Your task to perform on an android device: Show me popular games on the Play Store Image 0: 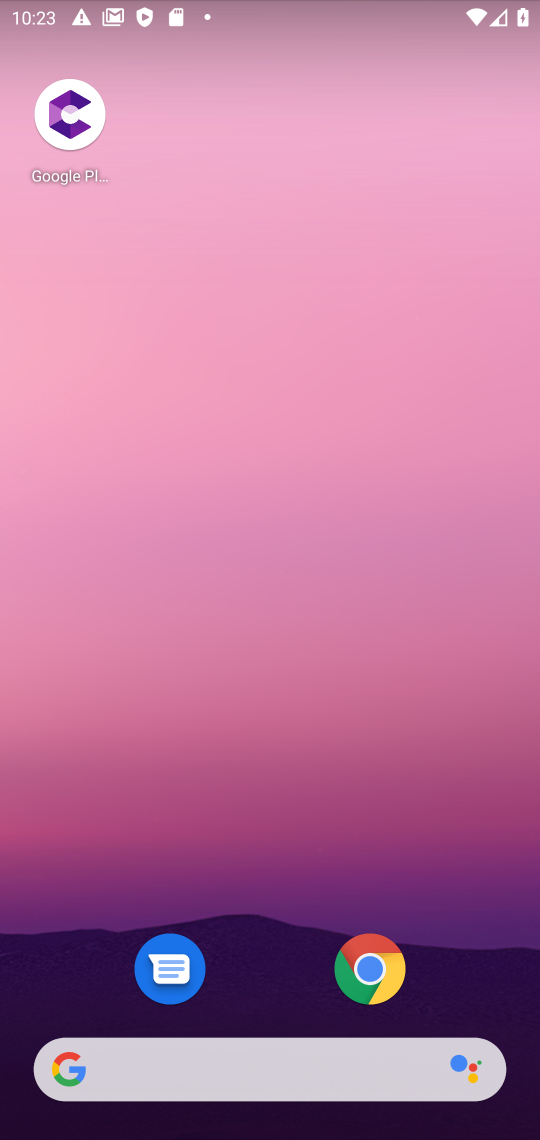
Step 0: drag from (248, 985) to (194, 17)
Your task to perform on an android device: Show me popular games on the Play Store Image 1: 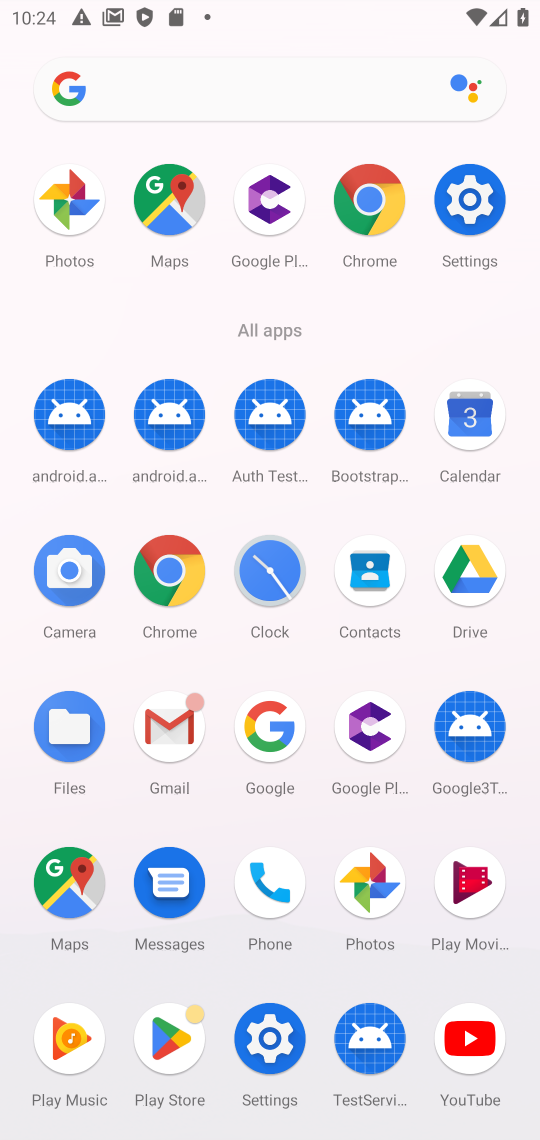
Step 1: click (181, 1031)
Your task to perform on an android device: Show me popular games on the Play Store Image 2: 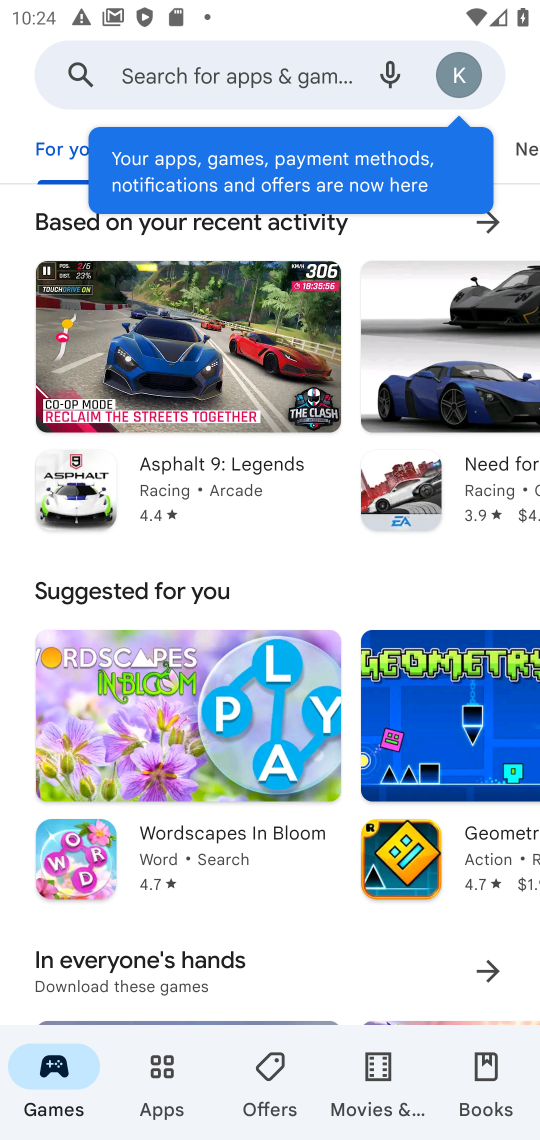
Step 2: task complete